Your task to perform on an android device: Go to eBay Image 0: 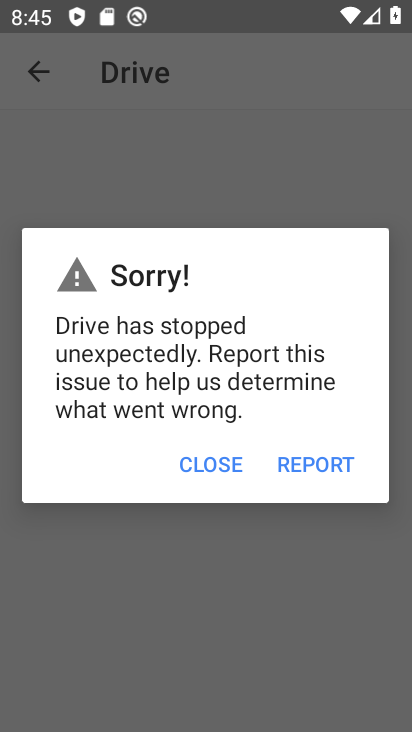
Step 0: click (219, 457)
Your task to perform on an android device: Go to eBay Image 1: 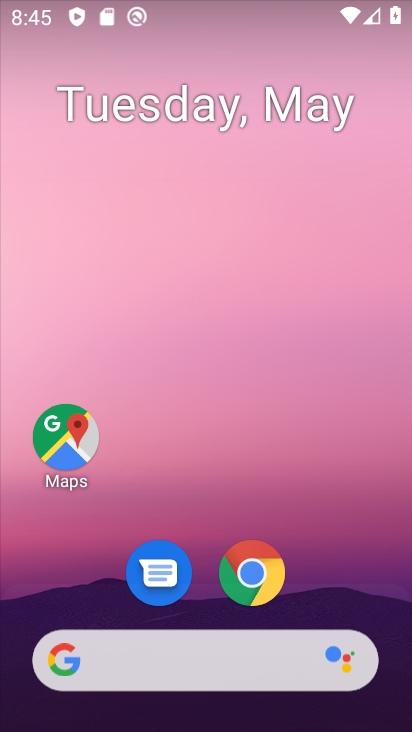
Step 1: drag from (225, 693) to (226, 229)
Your task to perform on an android device: Go to eBay Image 2: 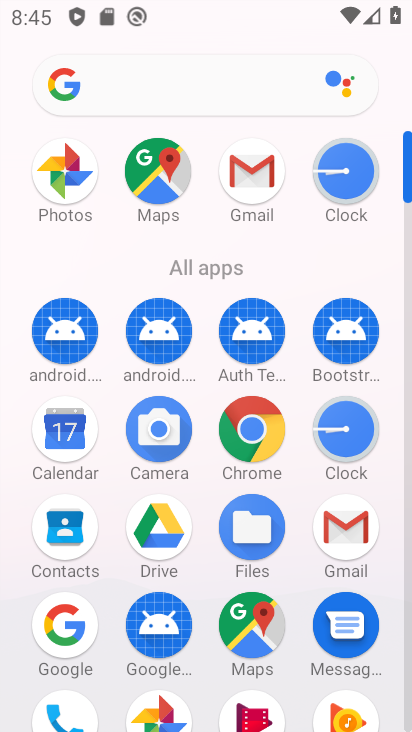
Step 2: click (248, 430)
Your task to perform on an android device: Go to eBay Image 3: 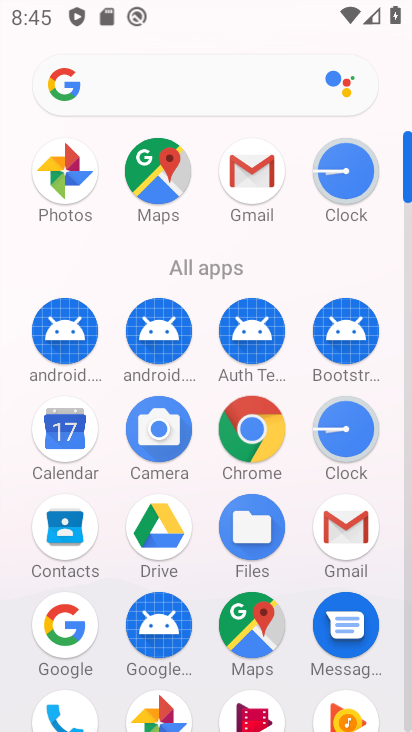
Step 3: click (248, 430)
Your task to perform on an android device: Go to eBay Image 4: 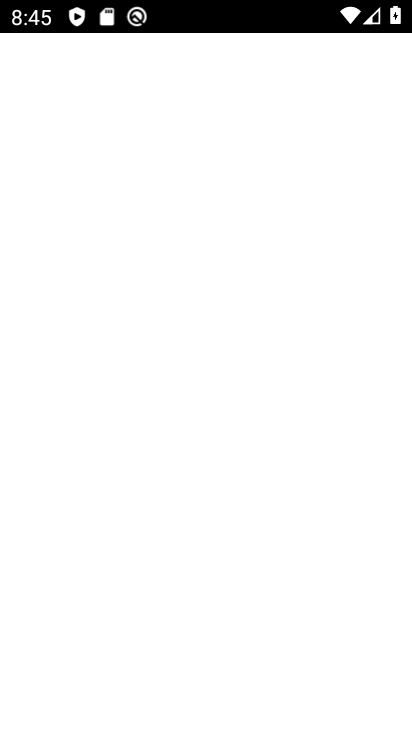
Step 4: click (248, 430)
Your task to perform on an android device: Go to eBay Image 5: 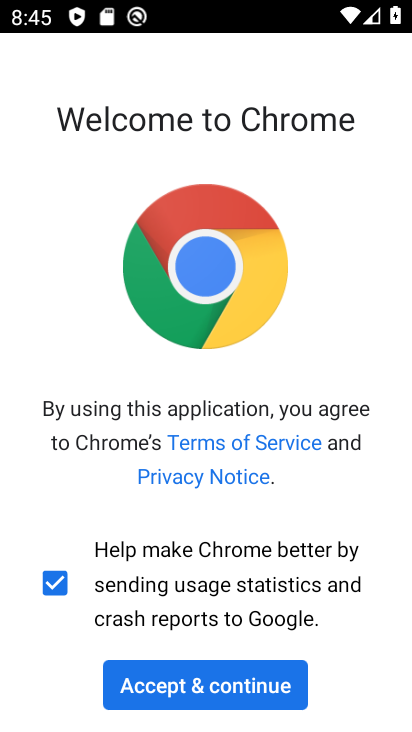
Step 5: click (230, 683)
Your task to perform on an android device: Go to eBay Image 6: 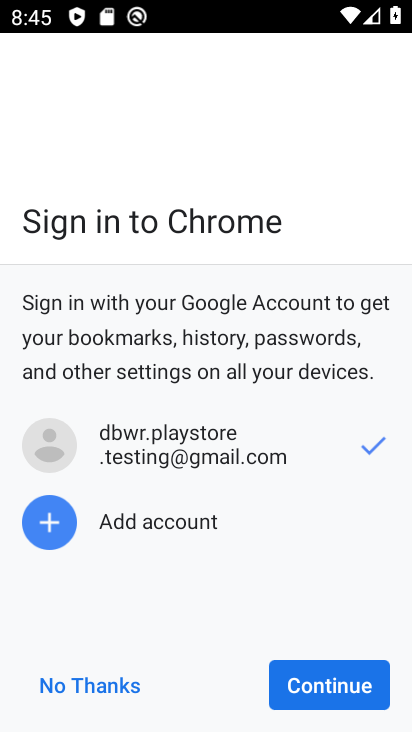
Step 6: click (225, 678)
Your task to perform on an android device: Go to eBay Image 7: 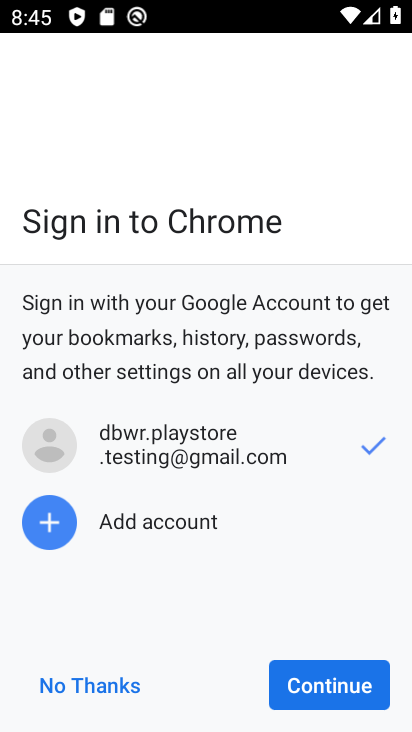
Step 7: click (225, 678)
Your task to perform on an android device: Go to eBay Image 8: 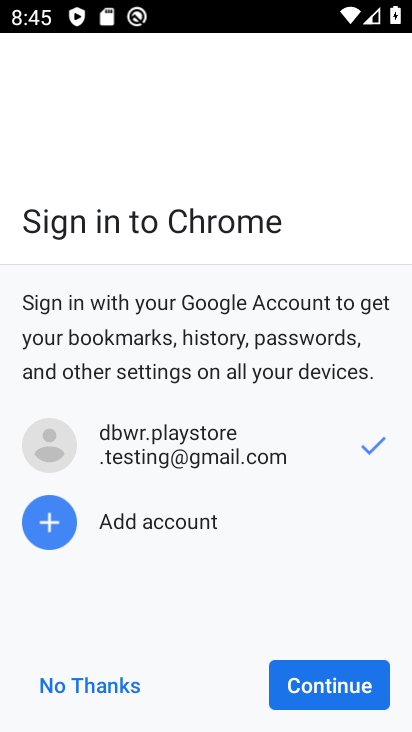
Step 8: click (309, 689)
Your task to perform on an android device: Go to eBay Image 9: 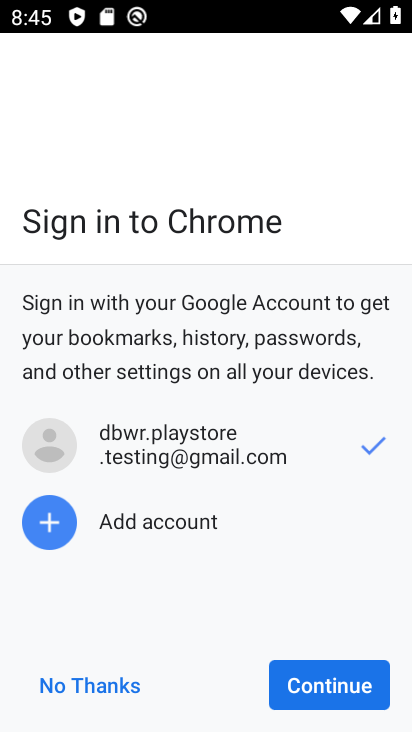
Step 9: click (320, 684)
Your task to perform on an android device: Go to eBay Image 10: 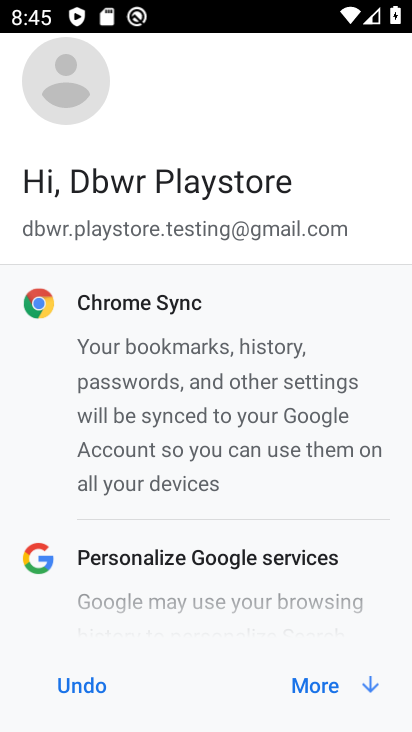
Step 10: click (320, 684)
Your task to perform on an android device: Go to eBay Image 11: 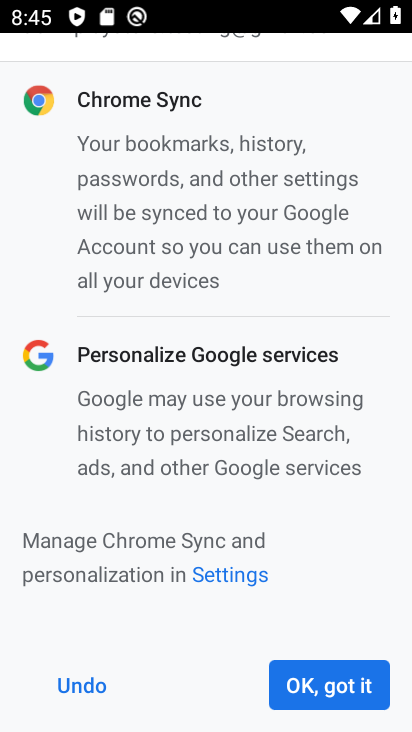
Step 11: click (328, 684)
Your task to perform on an android device: Go to eBay Image 12: 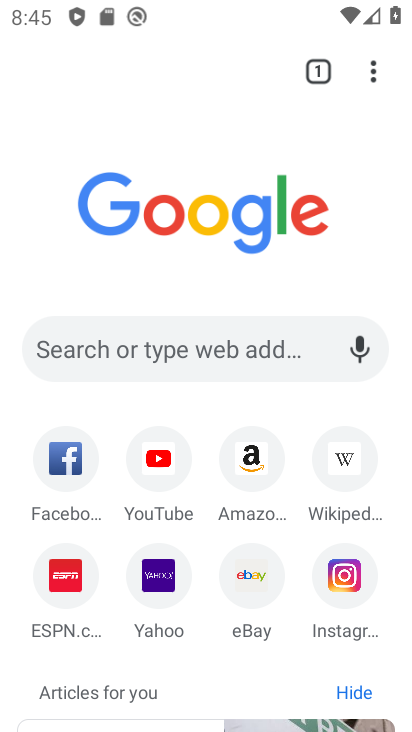
Step 12: click (248, 576)
Your task to perform on an android device: Go to eBay Image 13: 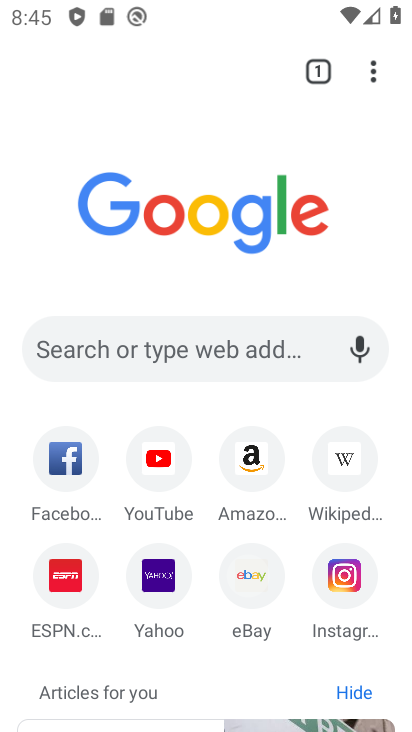
Step 13: click (248, 576)
Your task to perform on an android device: Go to eBay Image 14: 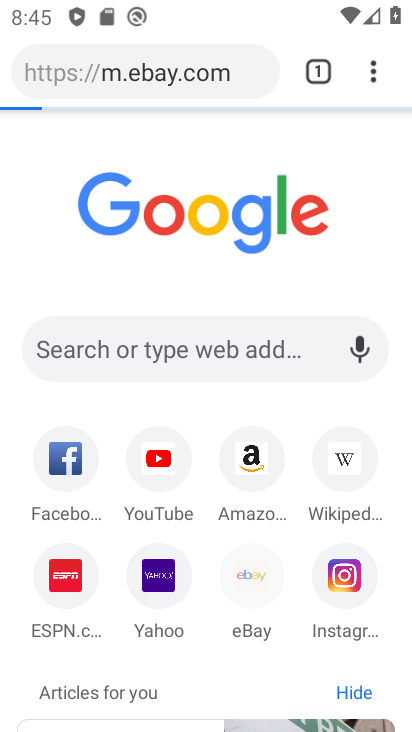
Step 14: click (249, 575)
Your task to perform on an android device: Go to eBay Image 15: 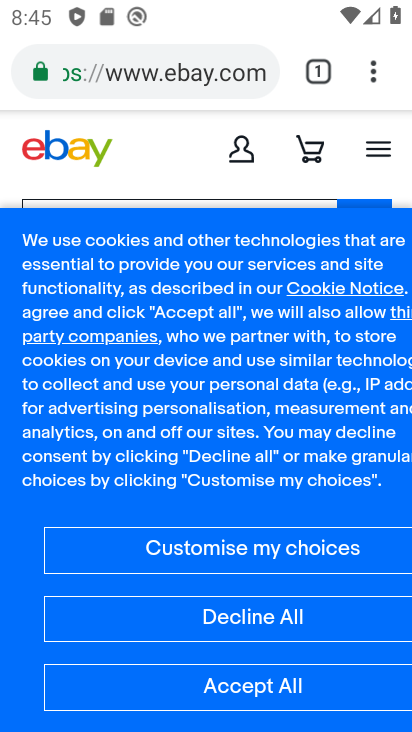
Step 15: task complete